Your task to perform on an android device: Show me recent news Image 0: 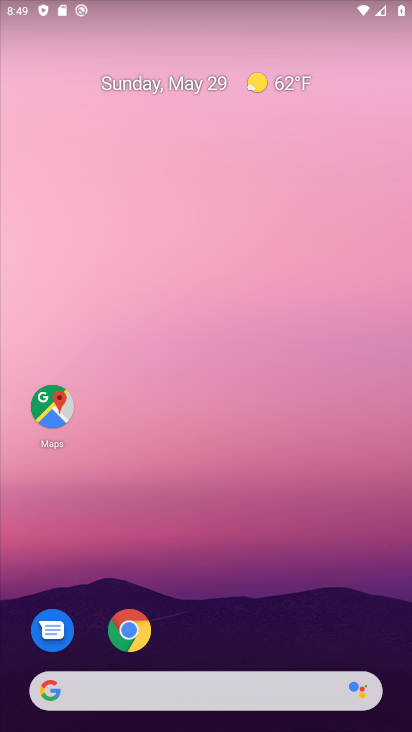
Step 0: drag from (3, 307) to (349, 304)
Your task to perform on an android device: Show me recent news Image 1: 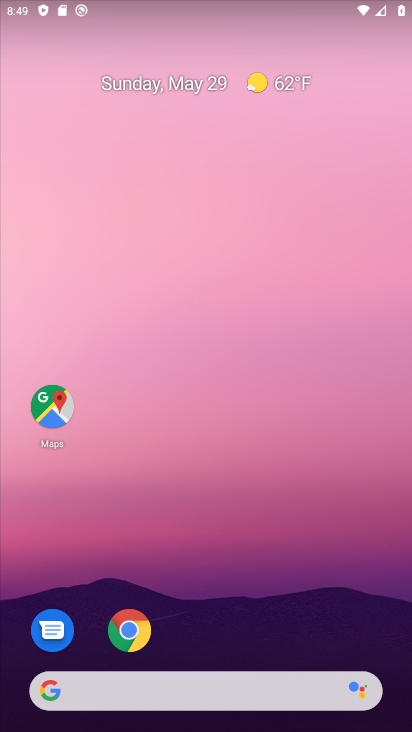
Step 1: task complete